Your task to perform on an android device: Open calendar and show me the first week of next month Image 0: 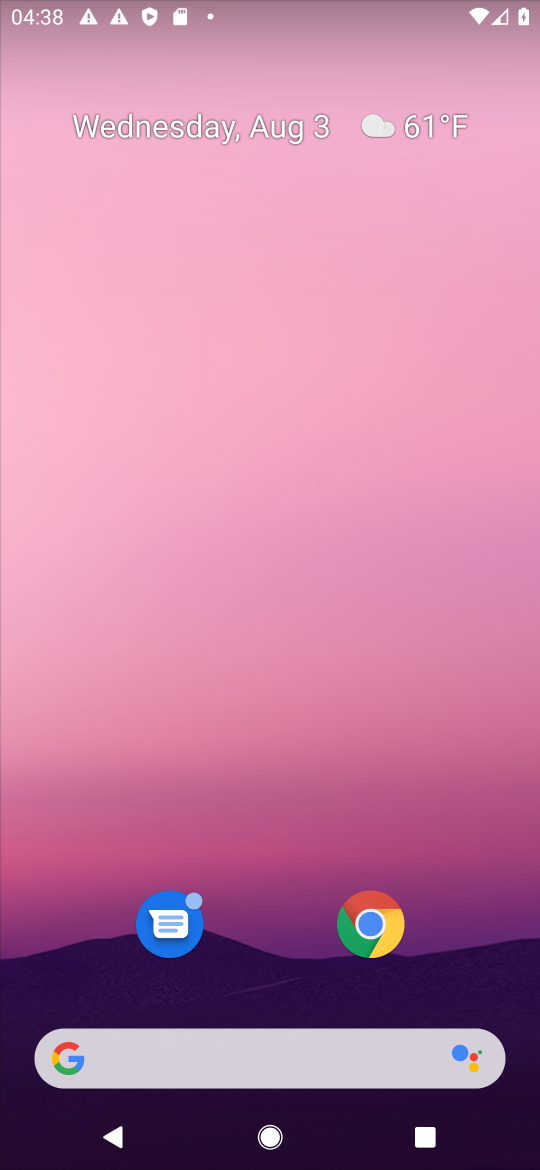
Step 0: drag from (258, 957) to (263, 178)
Your task to perform on an android device: Open calendar and show me the first week of next month Image 1: 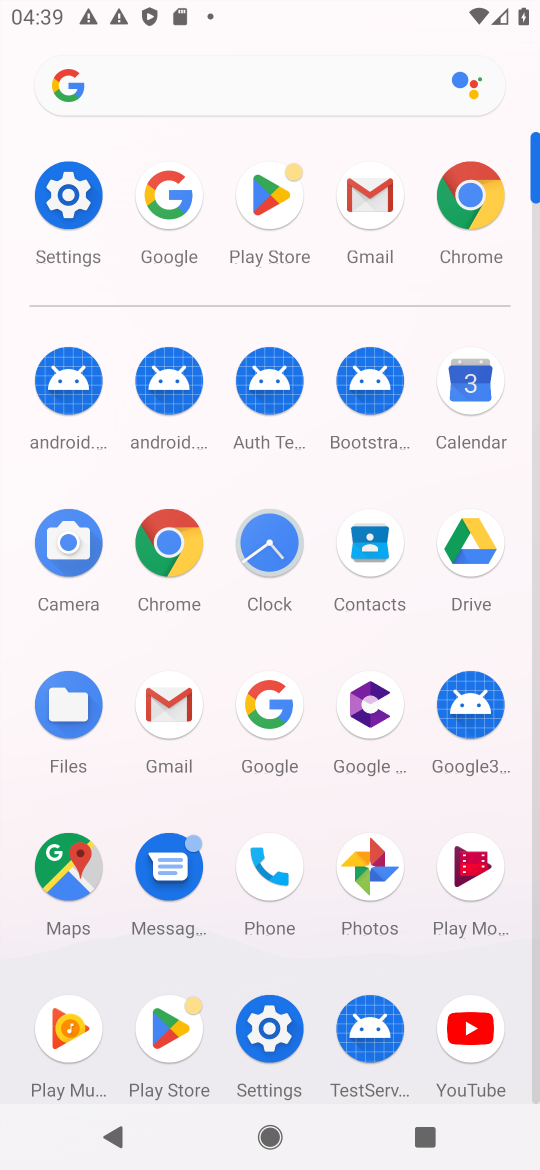
Step 1: click (480, 385)
Your task to perform on an android device: Open calendar and show me the first week of next month Image 2: 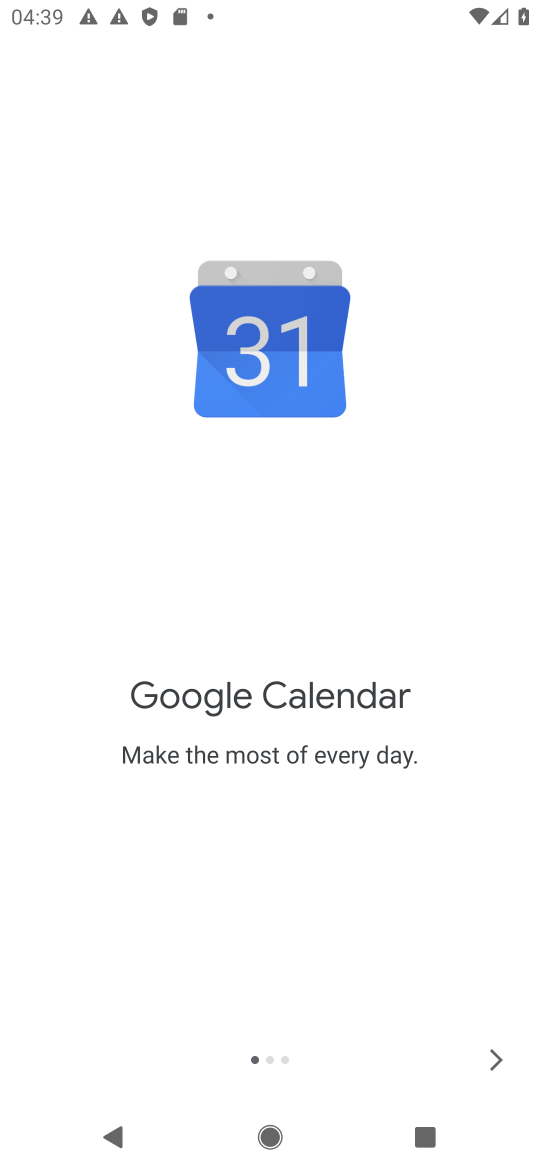
Step 2: click (502, 1071)
Your task to perform on an android device: Open calendar and show me the first week of next month Image 3: 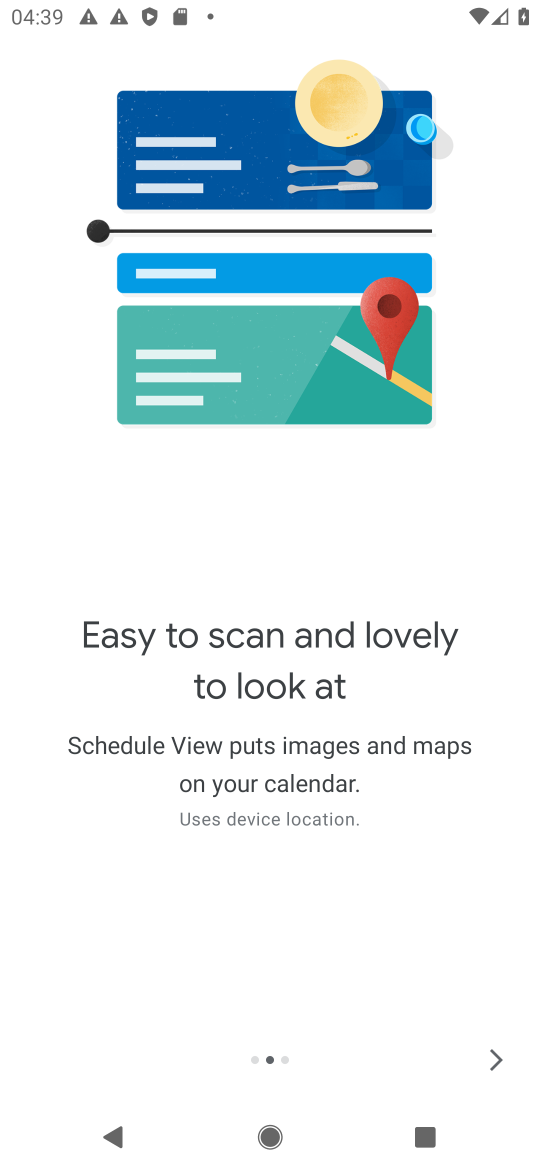
Step 3: click (500, 1070)
Your task to perform on an android device: Open calendar and show me the first week of next month Image 4: 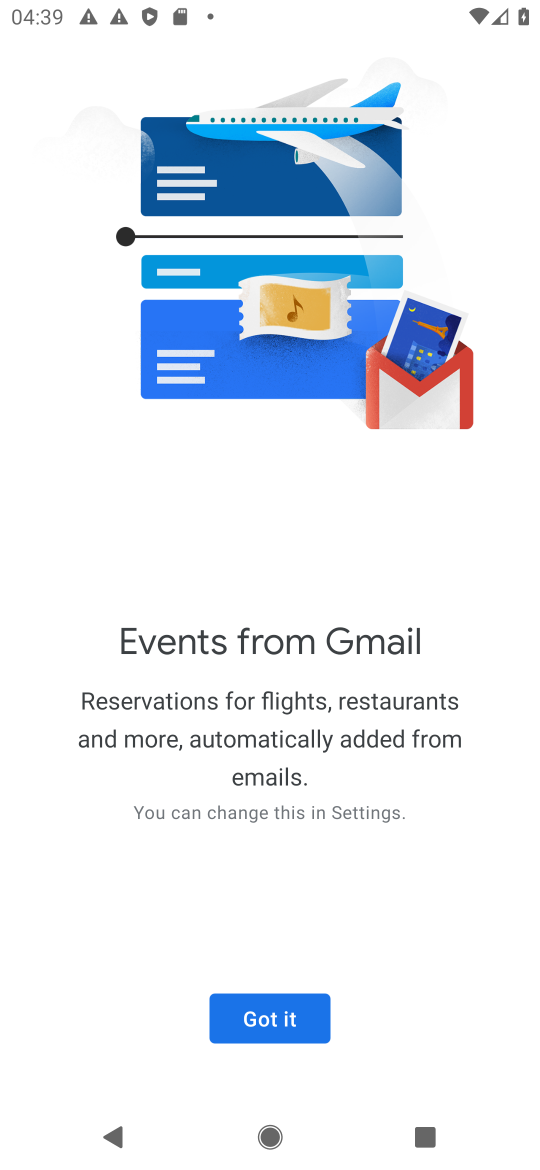
Step 4: click (295, 1025)
Your task to perform on an android device: Open calendar and show me the first week of next month Image 5: 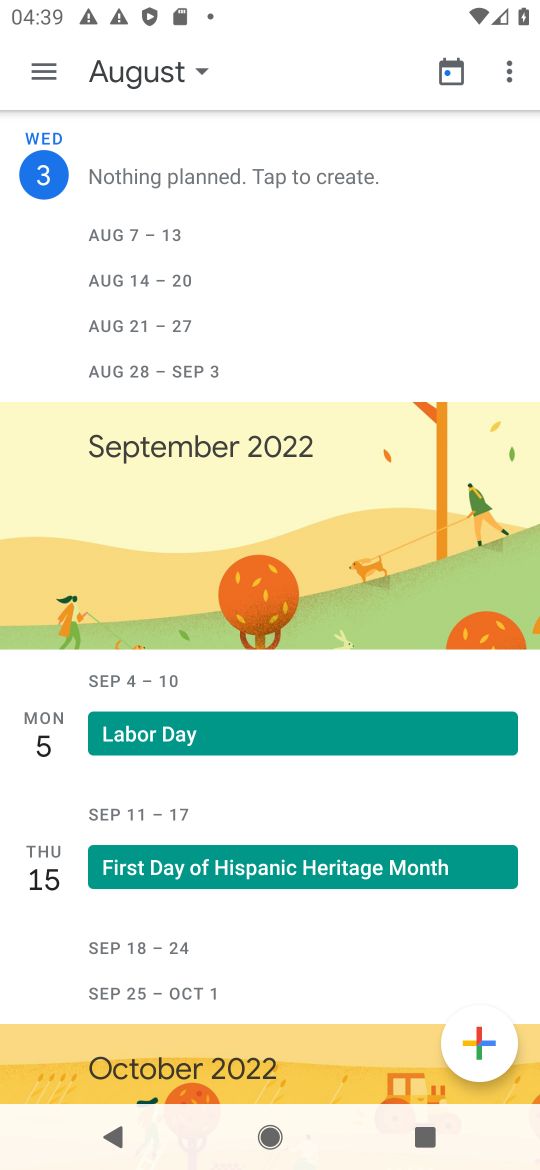
Step 5: click (180, 89)
Your task to perform on an android device: Open calendar and show me the first week of next month Image 6: 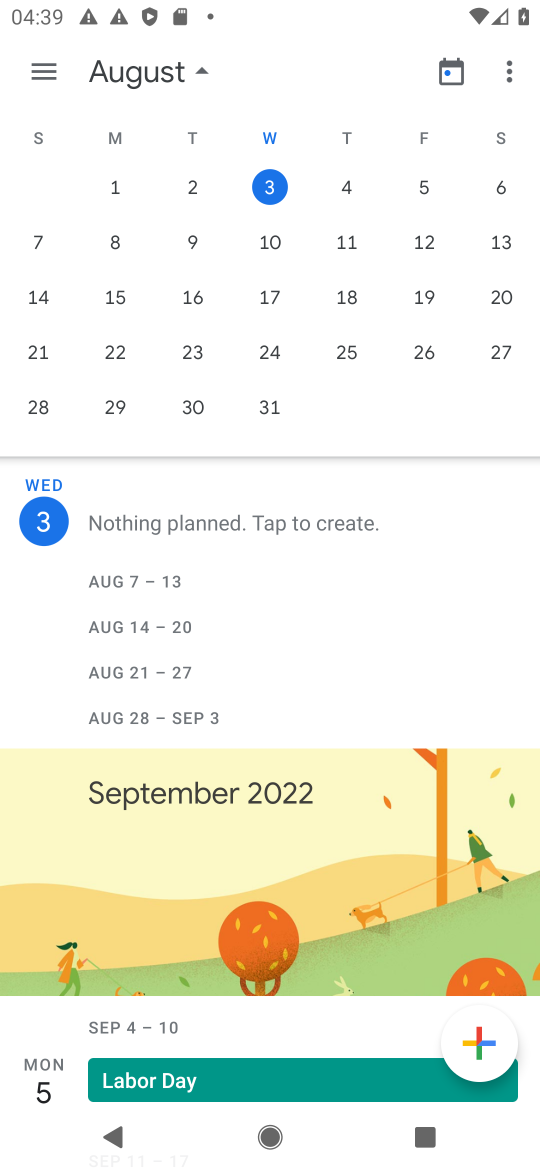
Step 6: drag from (443, 254) to (14, 261)
Your task to perform on an android device: Open calendar and show me the first week of next month Image 7: 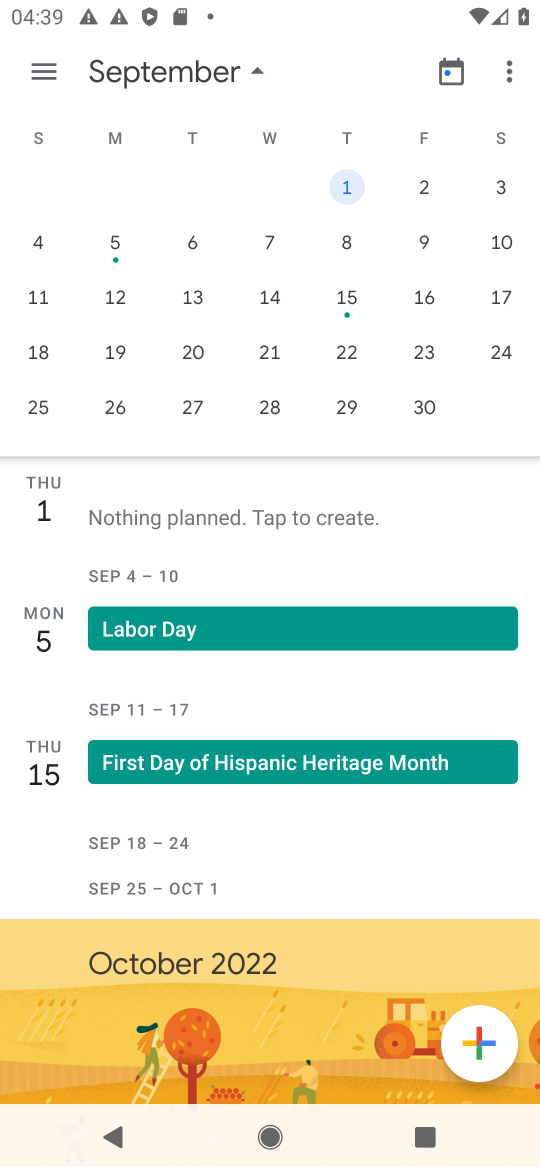
Step 7: click (345, 185)
Your task to perform on an android device: Open calendar and show me the first week of next month Image 8: 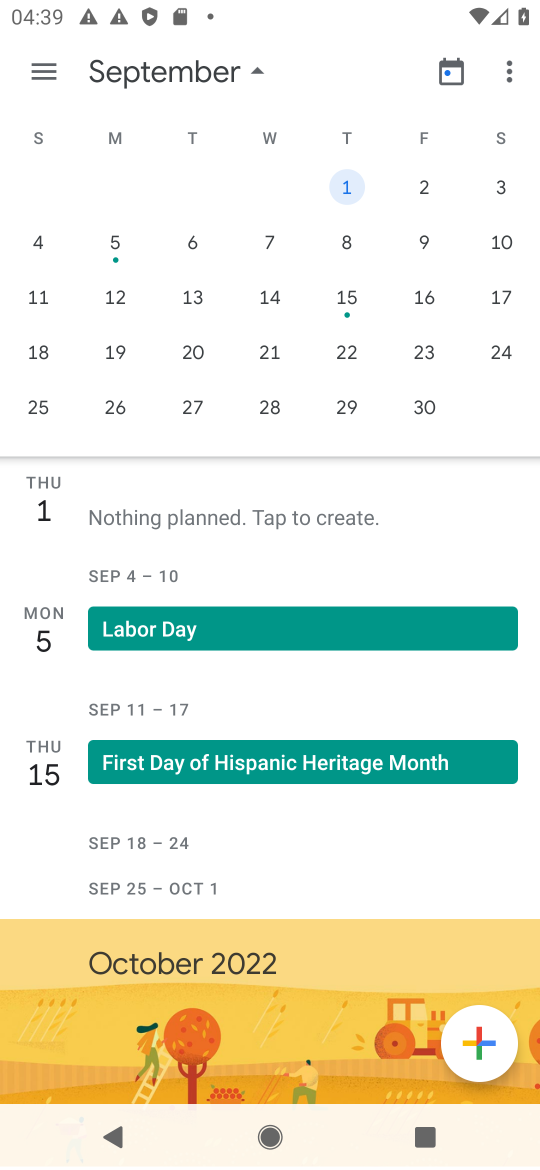
Step 8: click (406, 193)
Your task to perform on an android device: Open calendar and show me the first week of next month Image 9: 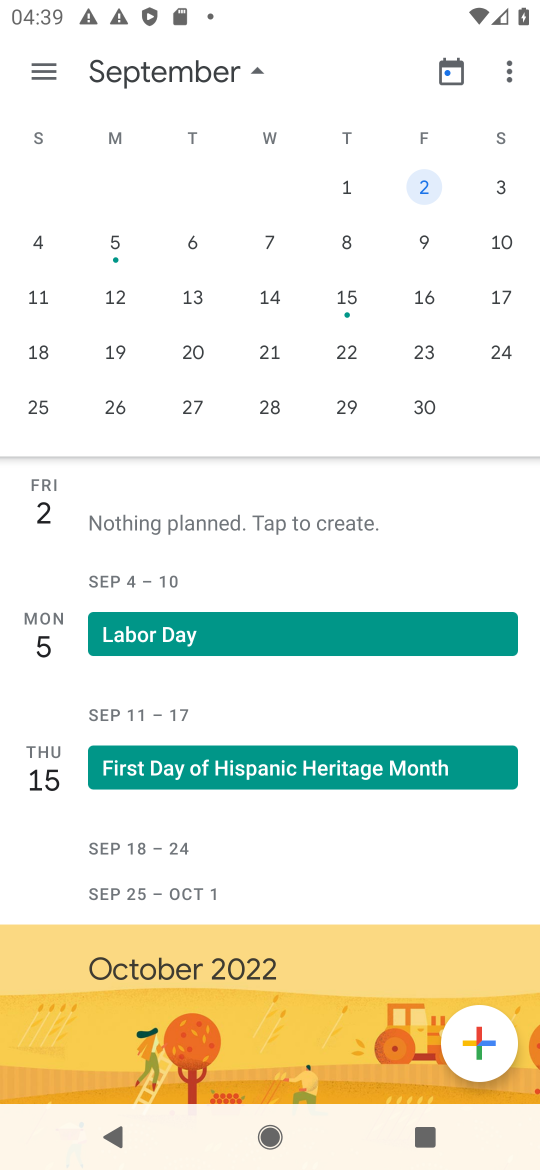
Step 9: click (368, 188)
Your task to perform on an android device: Open calendar and show me the first week of next month Image 10: 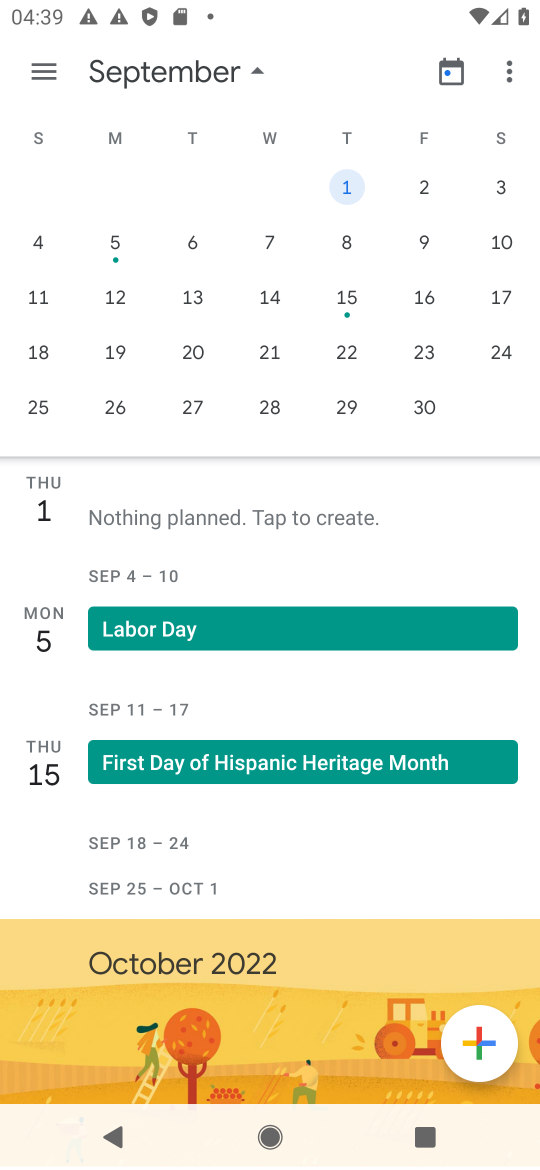
Step 10: task complete